Your task to perform on an android device: Go to network settings Image 0: 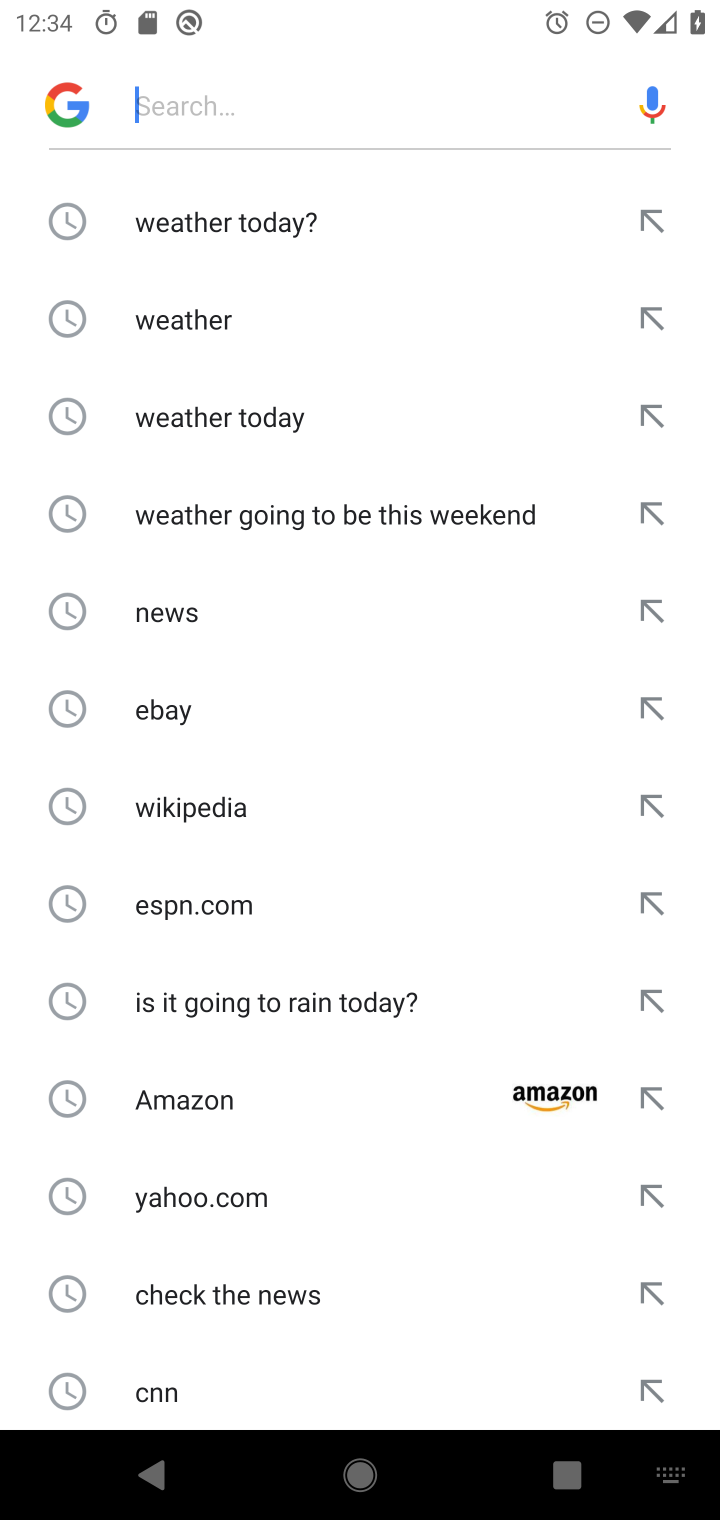
Step 0: press home button
Your task to perform on an android device: Go to network settings Image 1: 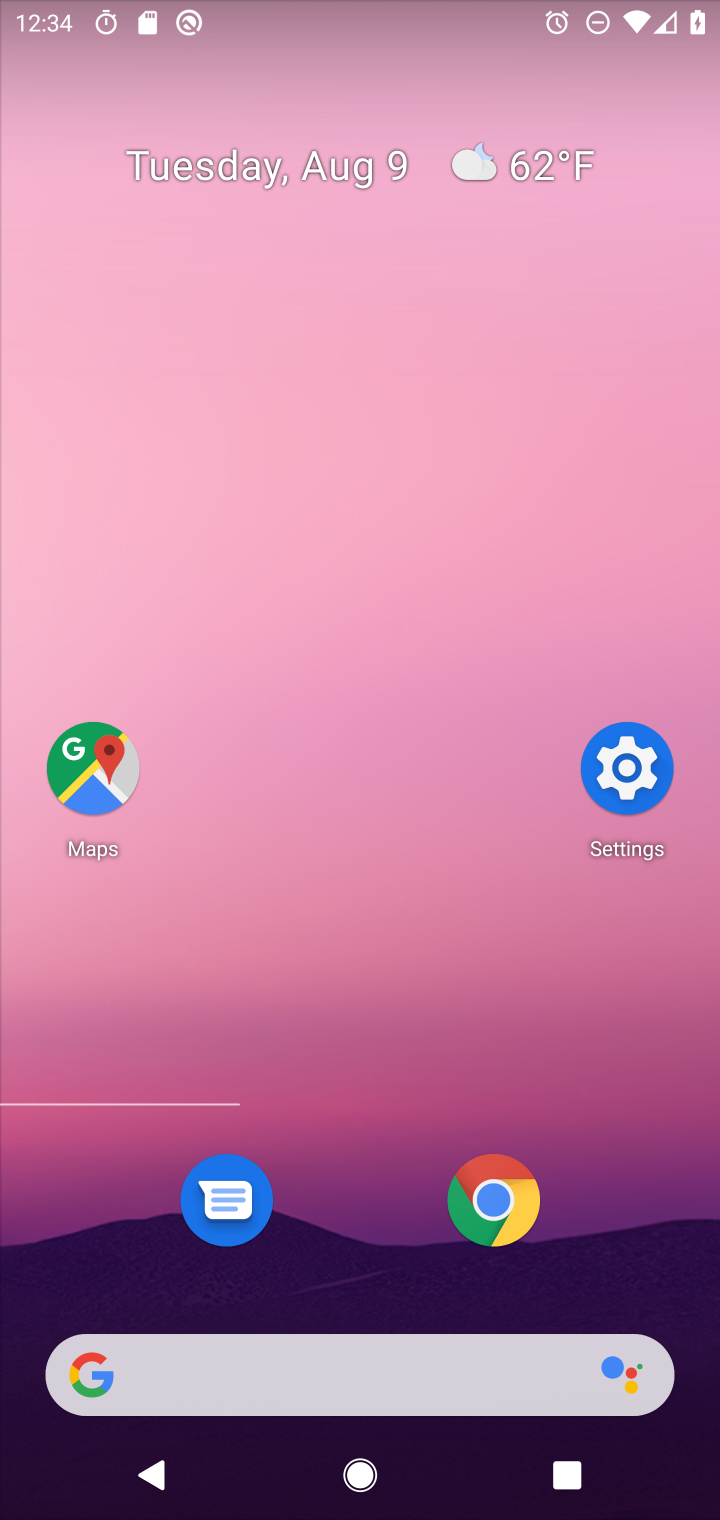
Step 1: click (637, 777)
Your task to perform on an android device: Go to network settings Image 2: 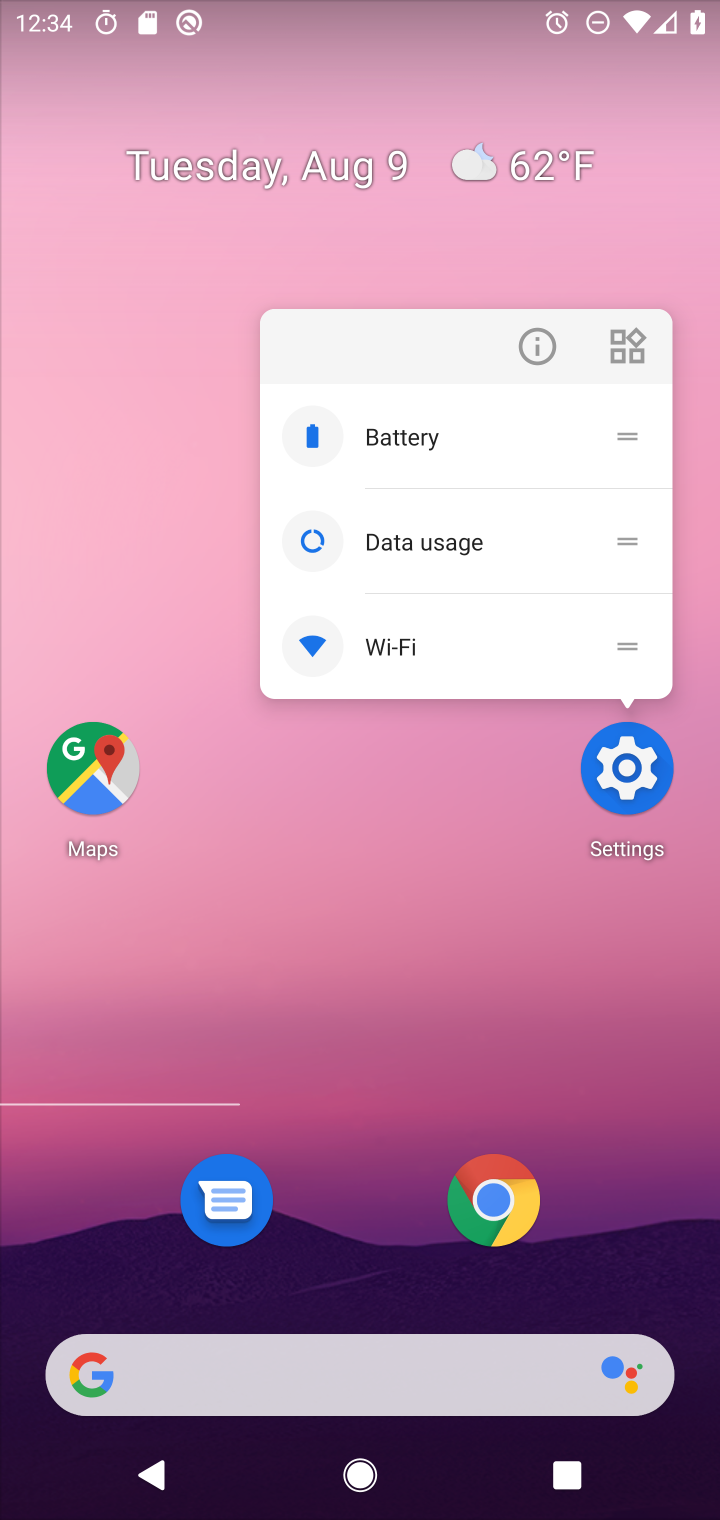
Step 2: click (644, 777)
Your task to perform on an android device: Go to network settings Image 3: 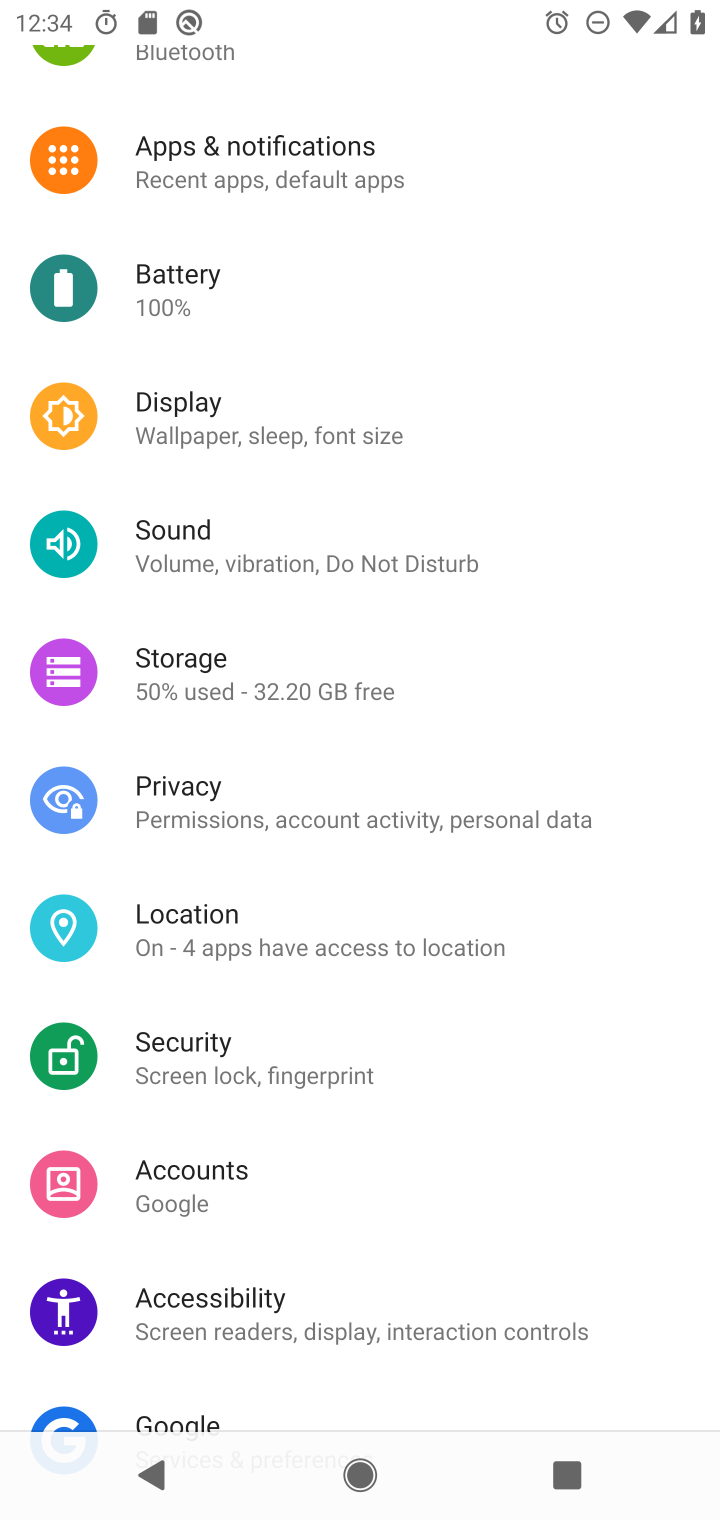
Step 3: drag from (547, 187) to (378, 1293)
Your task to perform on an android device: Go to network settings Image 4: 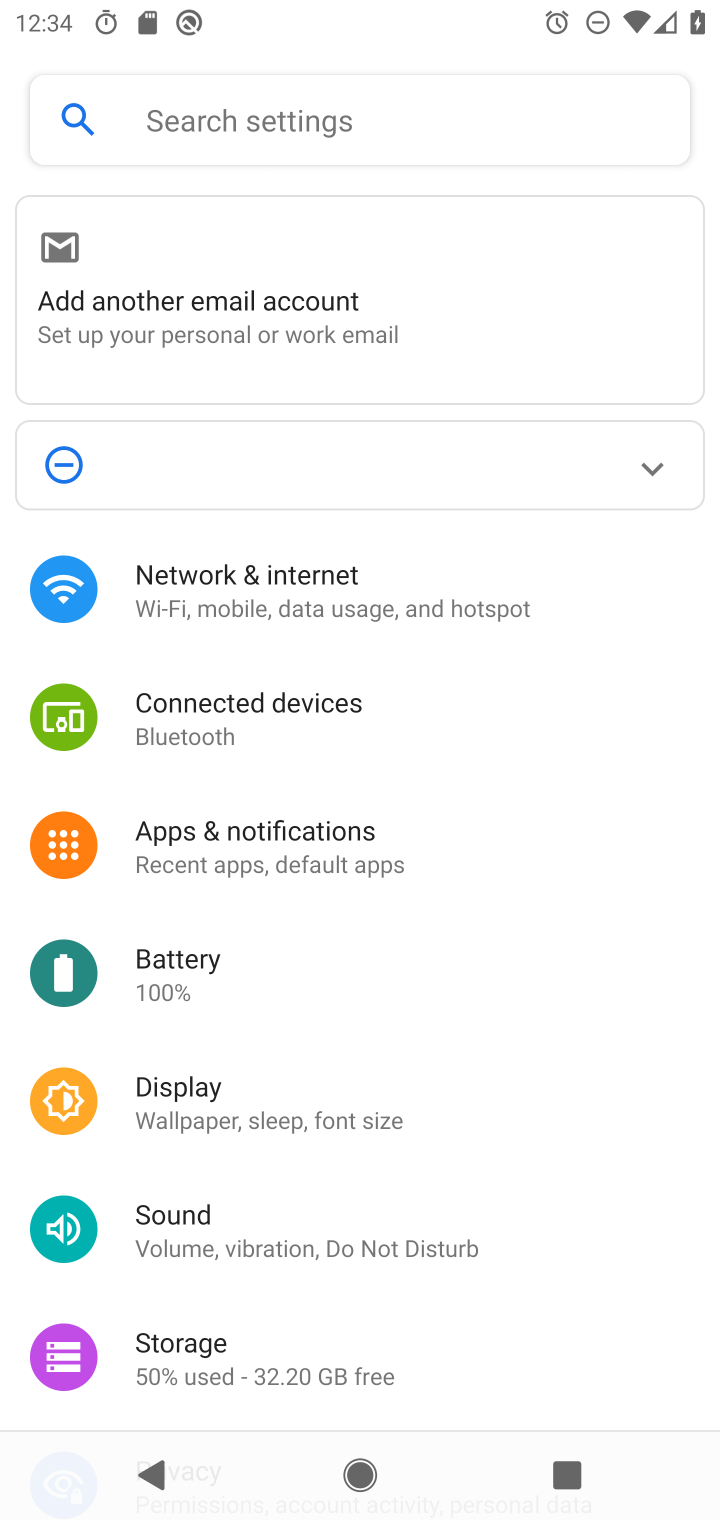
Step 4: click (329, 582)
Your task to perform on an android device: Go to network settings Image 5: 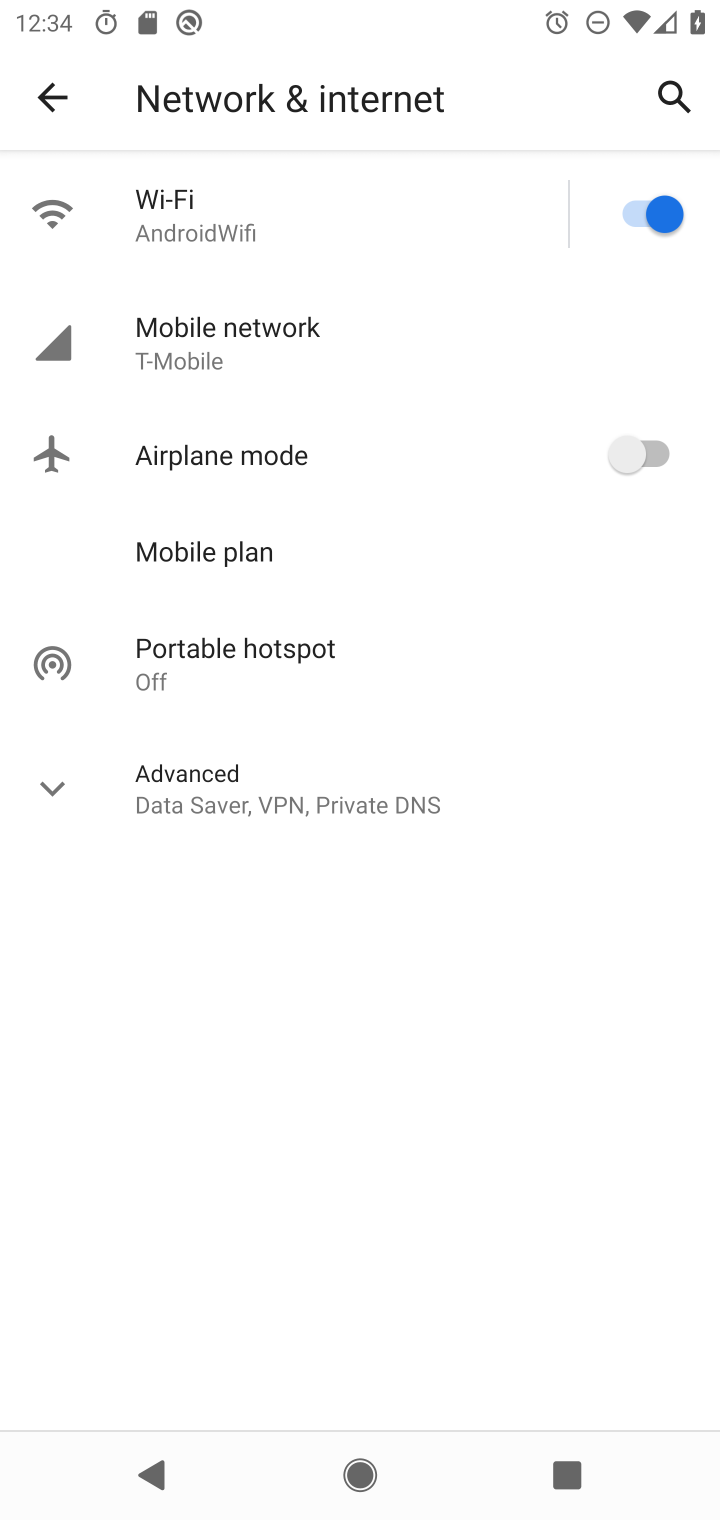
Step 5: click (237, 337)
Your task to perform on an android device: Go to network settings Image 6: 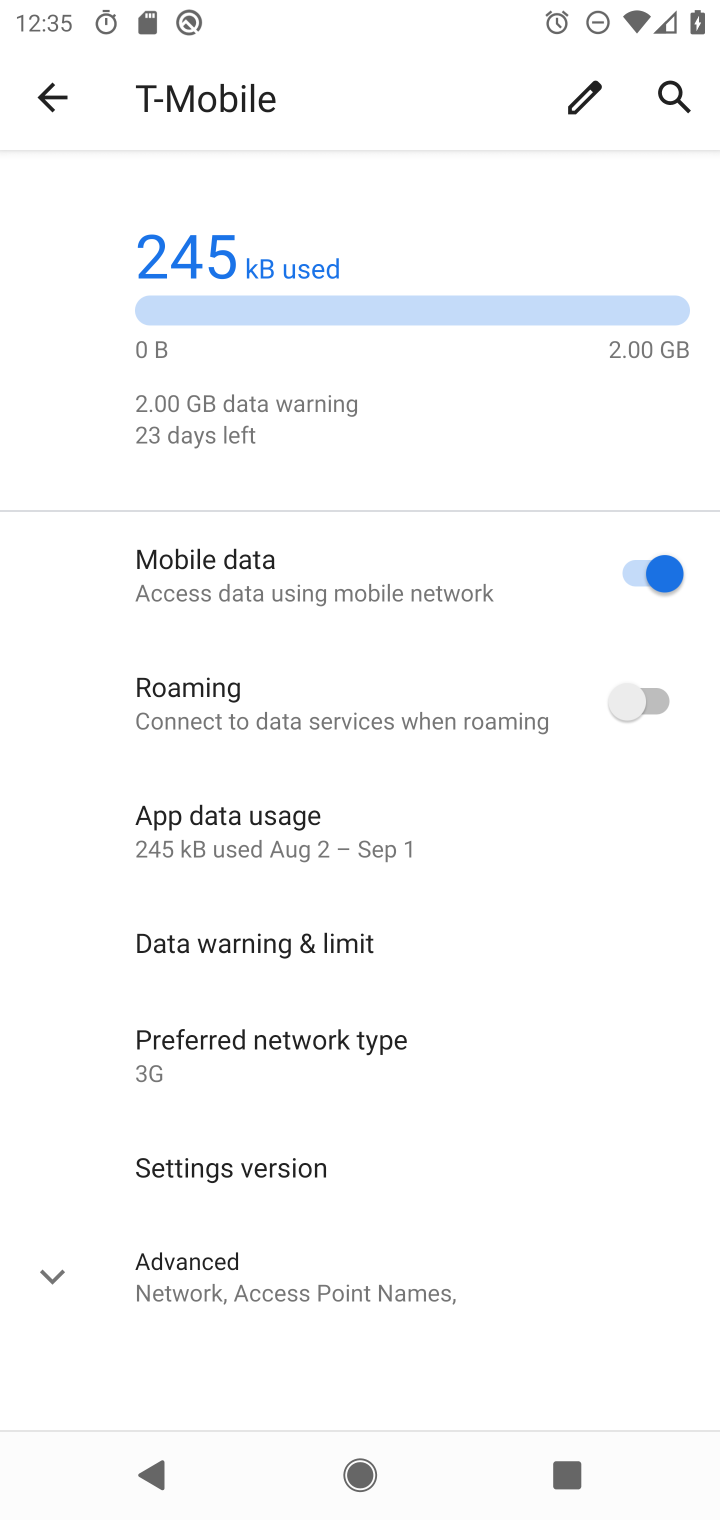
Step 6: task complete